Your task to perform on an android device: find photos in the google photos app Image 0: 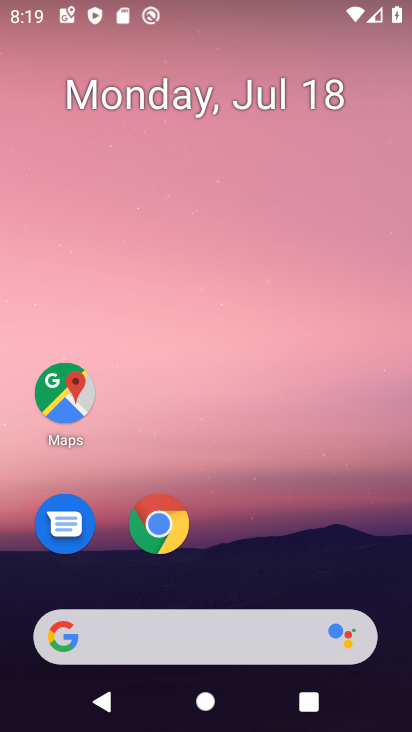
Step 0: drag from (272, 542) to (246, 26)
Your task to perform on an android device: find photos in the google photos app Image 1: 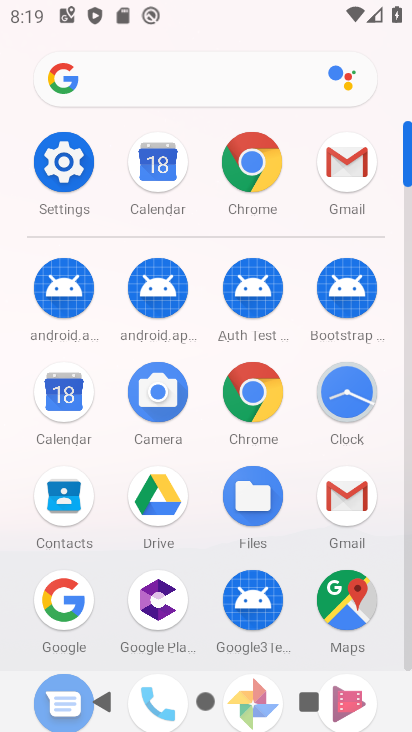
Step 1: drag from (210, 544) to (215, 125)
Your task to perform on an android device: find photos in the google photos app Image 2: 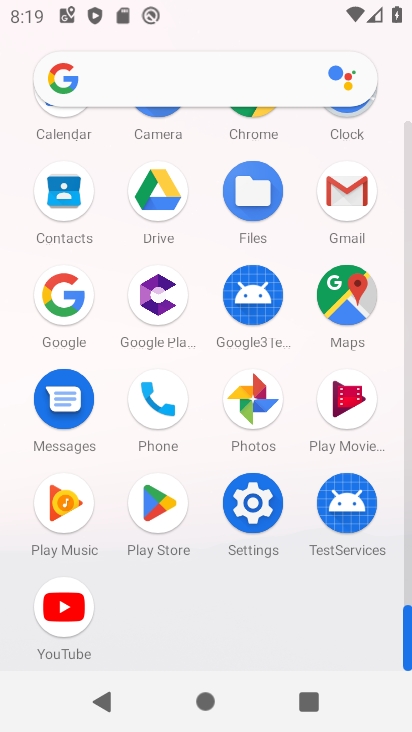
Step 2: click (256, 393)
Your task to perform on an android device: find photos in the google photos app Image 3: 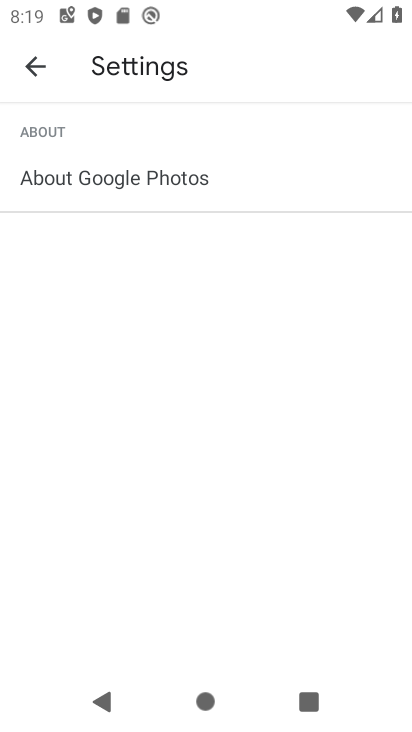
Step 3: click (40, 55)
Your task to perform on an android device: find photos in the google photos app Image 4: 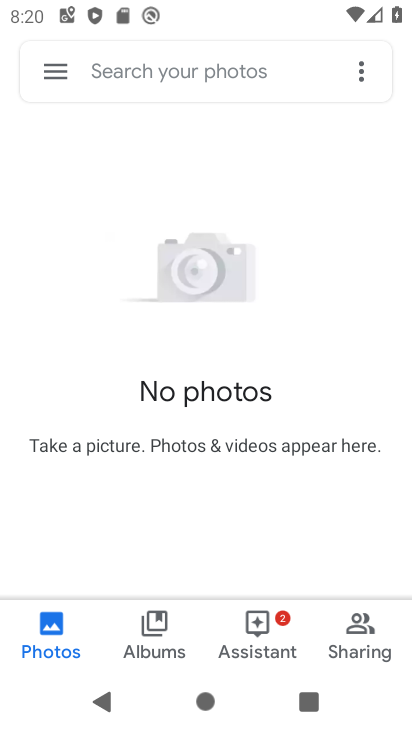
Step 4: task complete